Your task to perform on an android device: Clear the cart on newegg.com. Image 0: 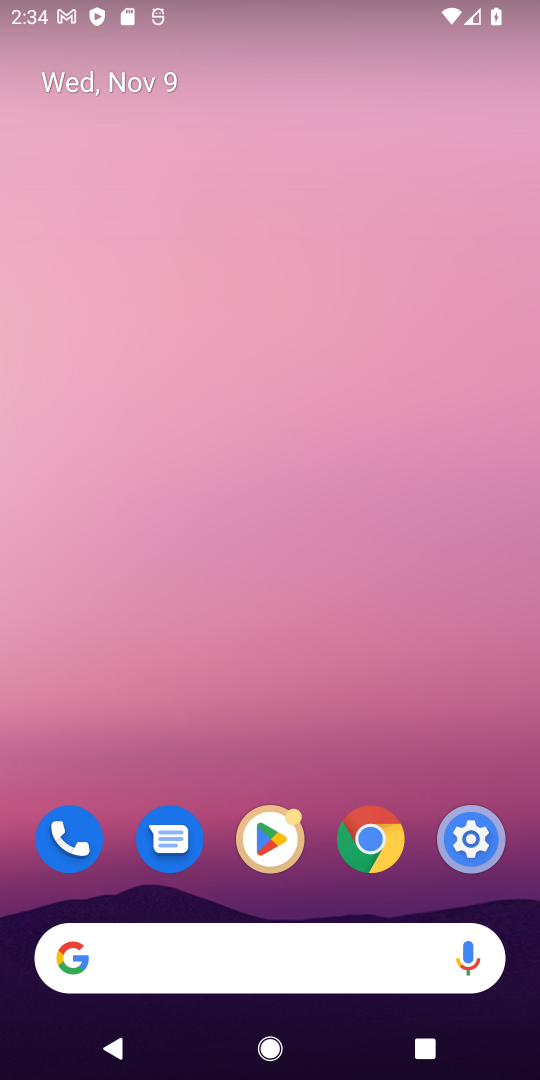
Step 0: click (224, 973)
Your task to perform on an android device: Clear the cart on newegg.com. Image 1: 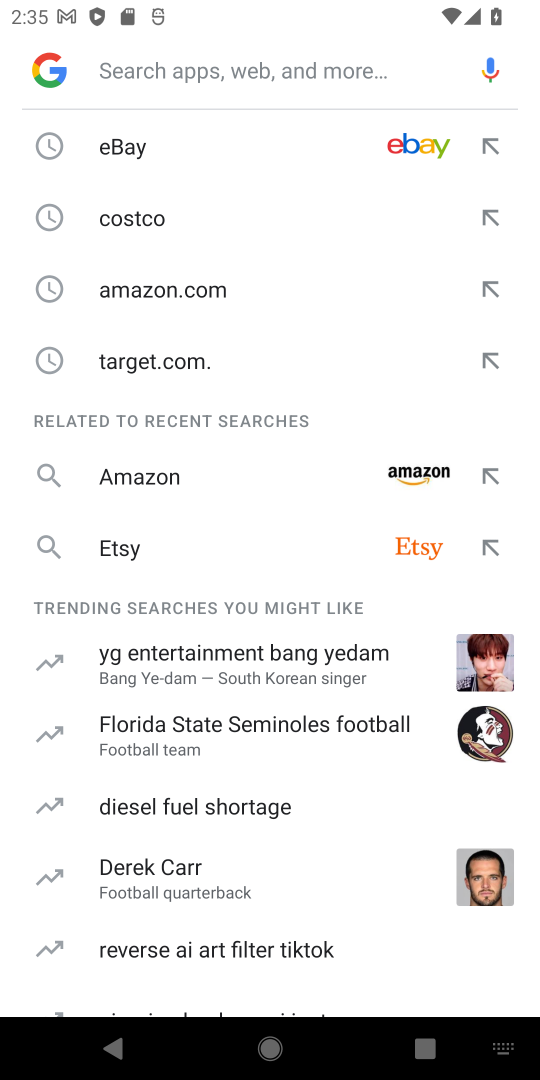
Step 1: type "newegg"
Your task to perform on an android device: Clear the cart on newegg.com. Image 2: 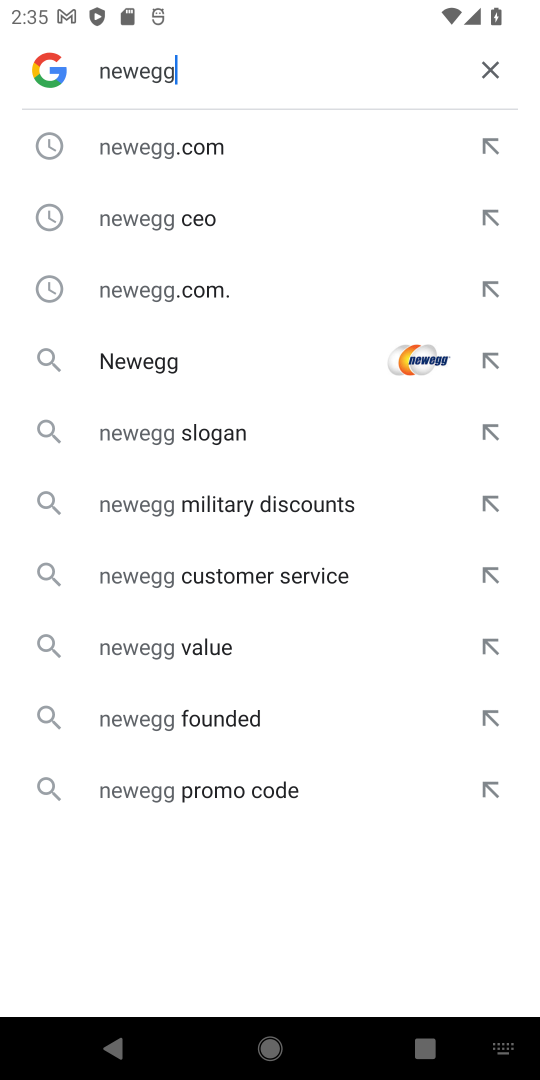
Step 2: click (245, 346)
Your task to perform on an android device: Clear the cart on newegg.com. Image 3: 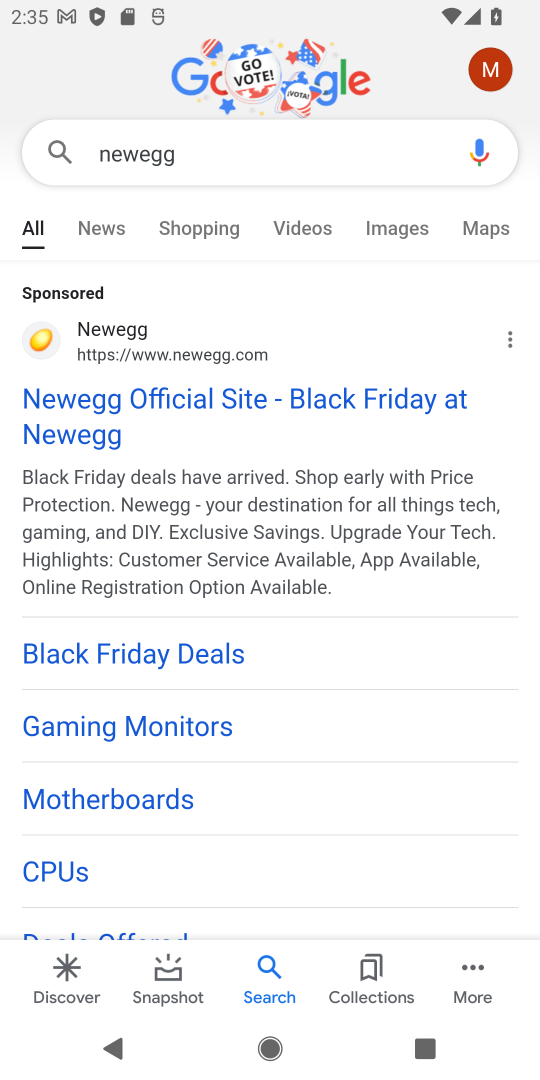
Step 3: click (200, 392)
Your task to perform on an android device: Clear the cart on newegg.com. Image 4: 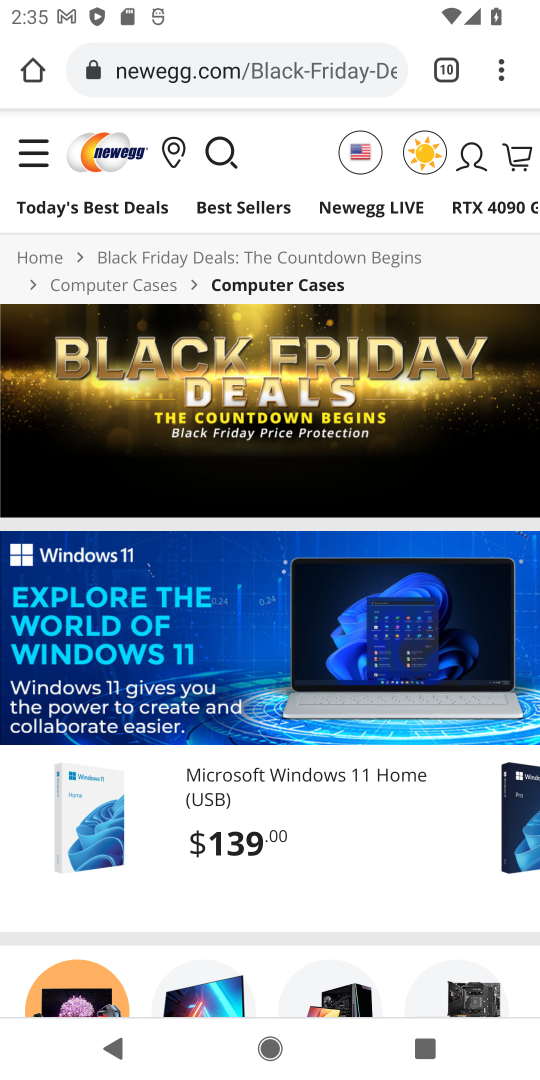
Step 4: task complete